Your task to perform on an android device: Open the phone app and click the voicemail tab. Image 0: 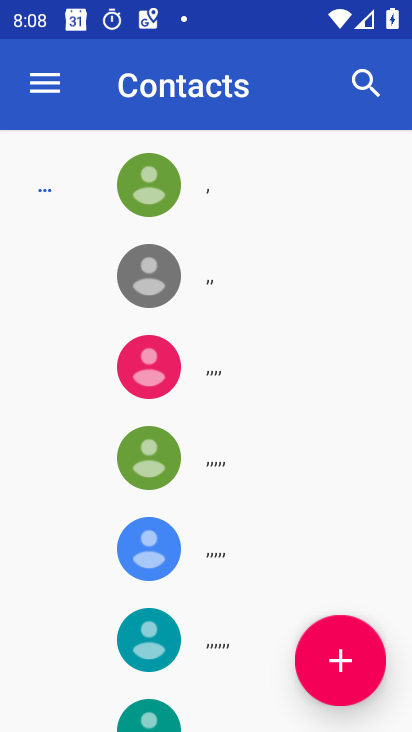
Step 0: press home button
Your task to perform on an android device: Open the phone app and click the voicemail tab. Image 1: 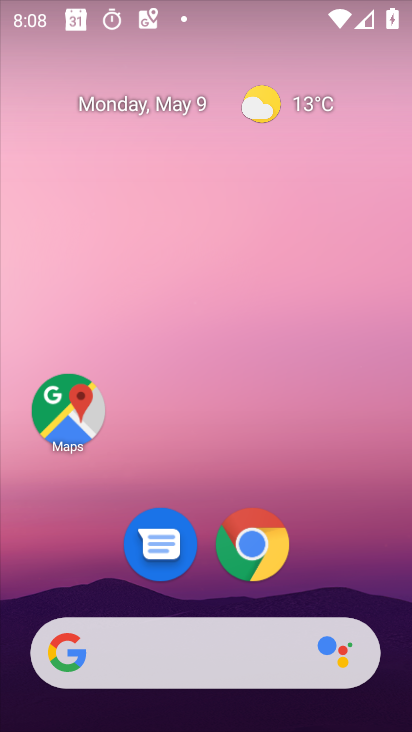
Step 1: drag from (396, 513) to (412, 198)
Your task to perform on an android device: Open the phone app and click the voicemail tab. Image 2: 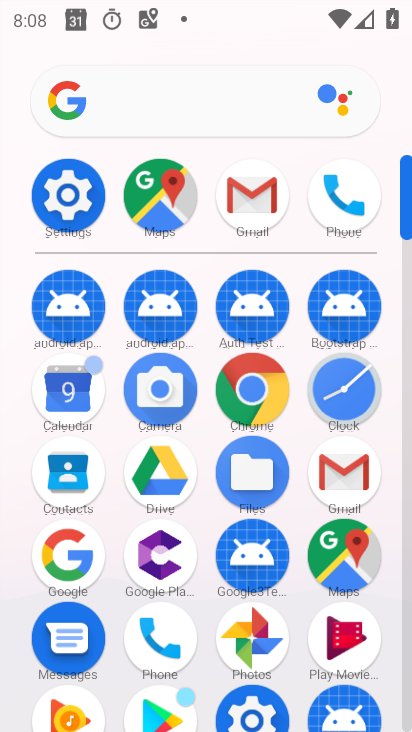
Step 2: click (353, 195)
Your task to perform on an android device: Open the phone app and click the voicemail tab. Image 3: 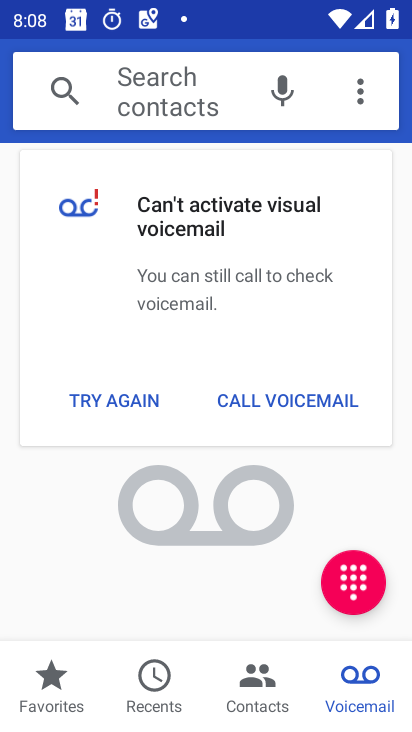
Step 3: task complete